Your task to perform on an android device: change the clock display to digital Image 0: 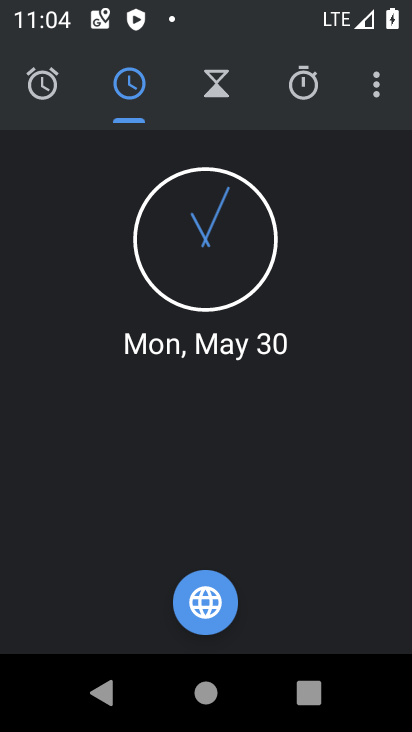
Step 0: click (387, 94)
Your task to perform on an android device: change the clock display to digital Image 1: 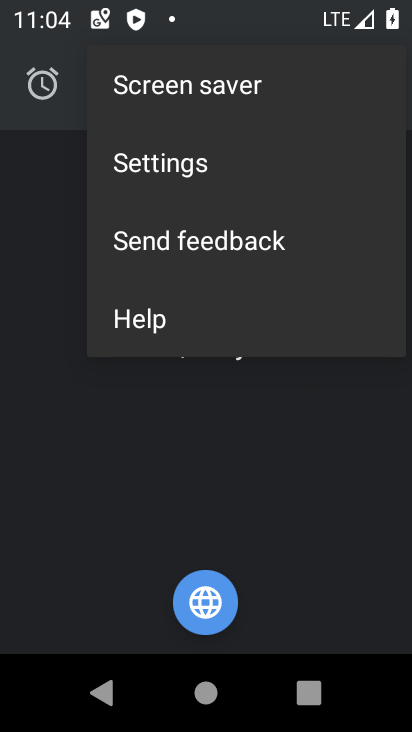
Step 1: click (166, 167)
Your task to perform on an android device: change the clock display to digital Image 2: 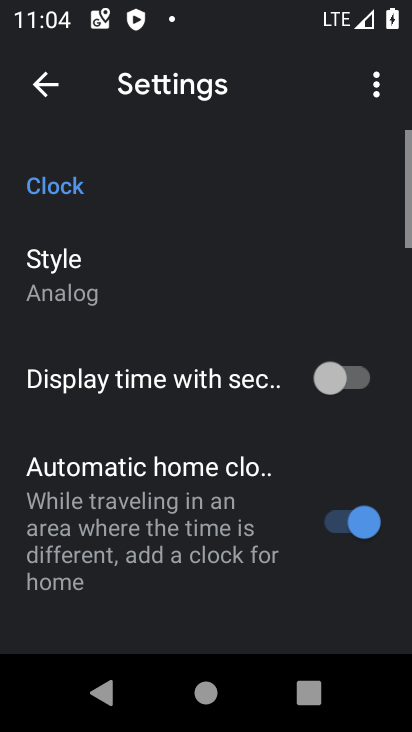
Step 2: click (74, 288)
Your task to perform on an android device: change the clock display to digital Image 3: 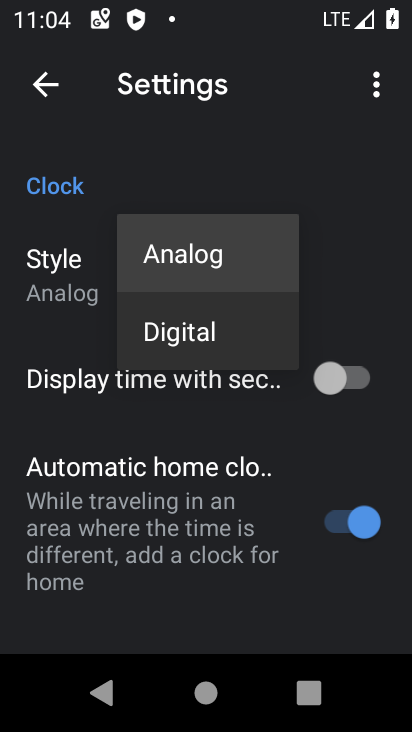
Step 3: click (185, 325)
Your task to perform on an android device: change the clock display to digital Image 4: 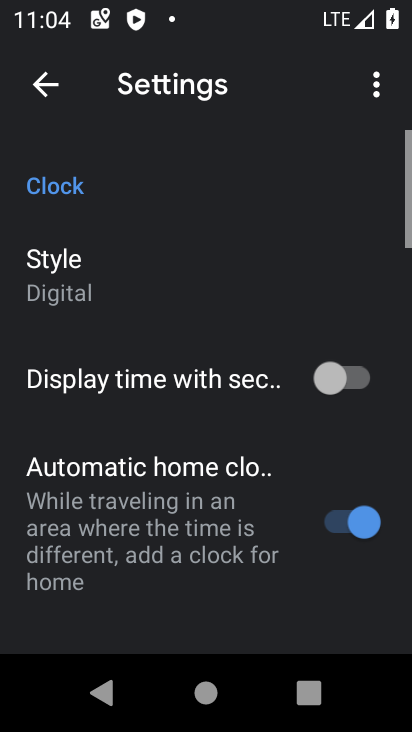
Step 4: task complete